Your task to perform on an android device: Clear all items from cart on bestbuy. Add "apple airpods pro" to the cart on bestbuy, then select checkout. Image 0: 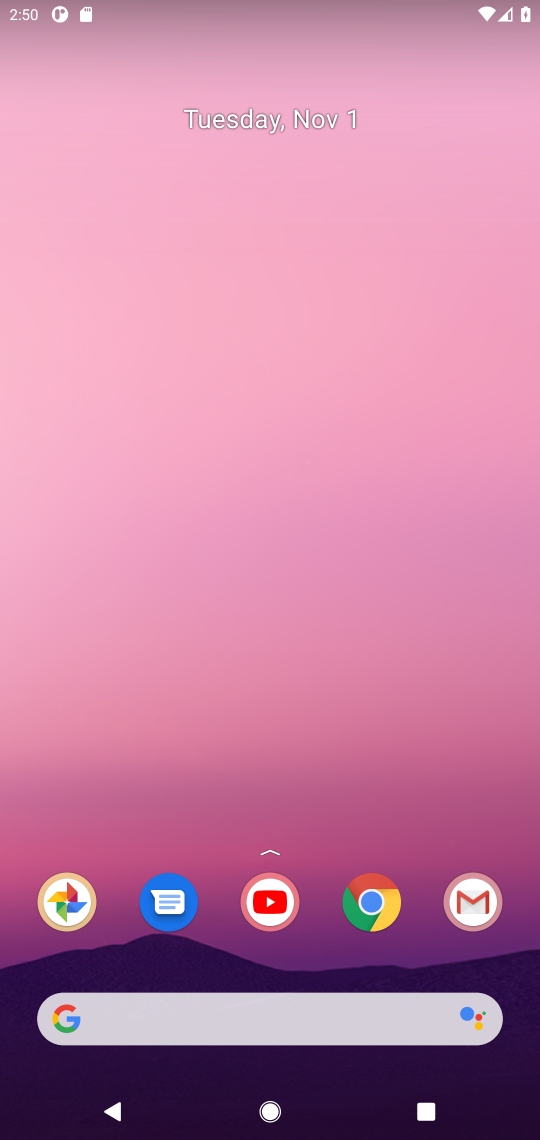
Step 0: click (374, 904)
Your task to perform on an android device: Clear all items from cart on bestbuy. Add "apple airpods pro" to the cart on bestbuy, then select checkout. Image 1: 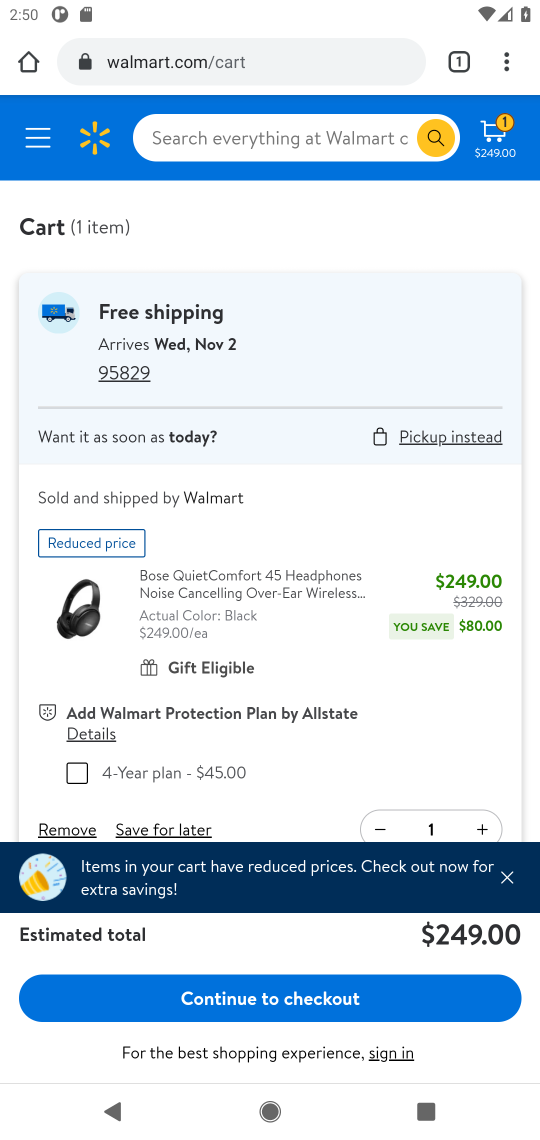
Step 1: click (273, 57)
Your task to perform on an android device: Clear all items from cart on bestbuy. Add "apple airpods pro" to the cart on bestbuy, then select checkout. Image 2: 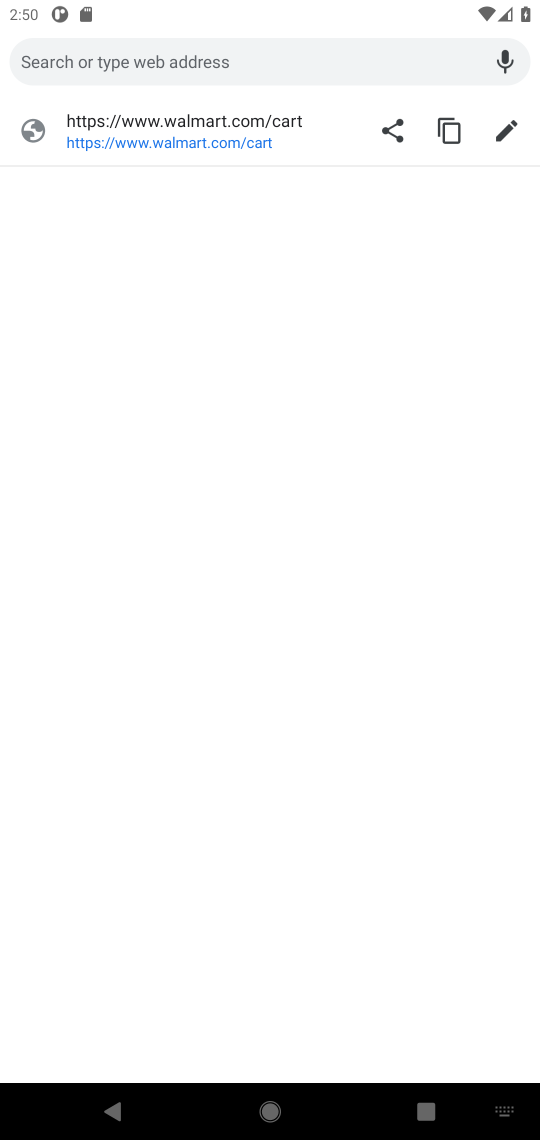
Step 2: type "bestbuy"
Your task to perform on an android device: Clear all items from cart on bestbuy. Add "apple airpods pro" to the cart on bestbuy, then select checkout. Image 3: 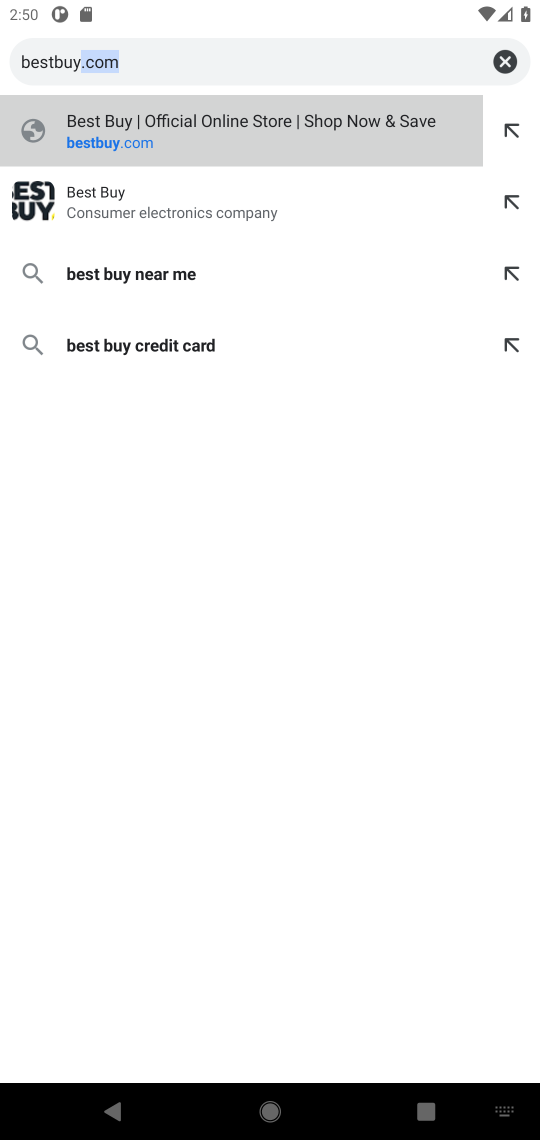
Step 3: click (103, 207)
Your task to perform on an android device: Clear all items from cart on bestbuy. Add "apple airpods pro" to the cart on bestbuy, then select checkout. Image 4: 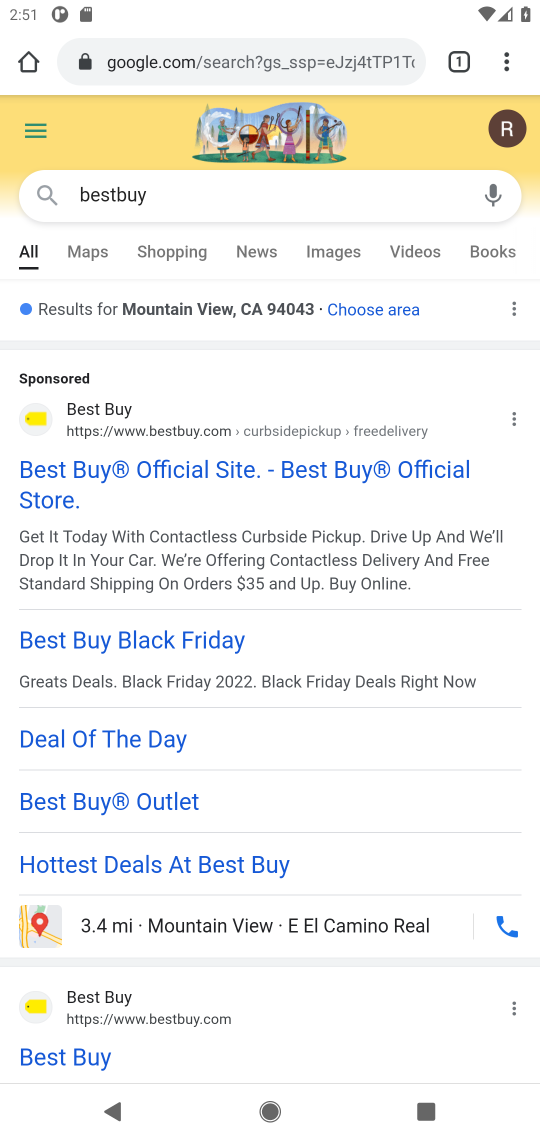
Step 4: click (139, 1023)
Your task to perform on an android device: Clear all items from cart on bestbuy. Add "apple airpods pro" to the cart on bestbuy, then select checkout. Image 5: 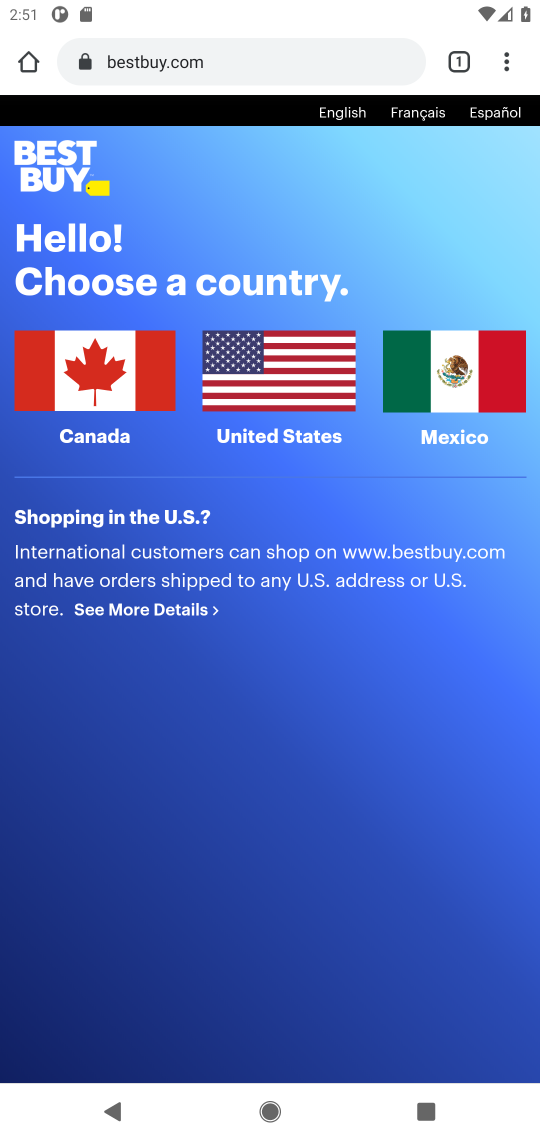
Step 5: click (298, 385)
Your task to perform on an android device: Clear all items from cart on bestbuy. Add "apple airpods pro" to the cart on bestbuy, then select checkout. Image 6: 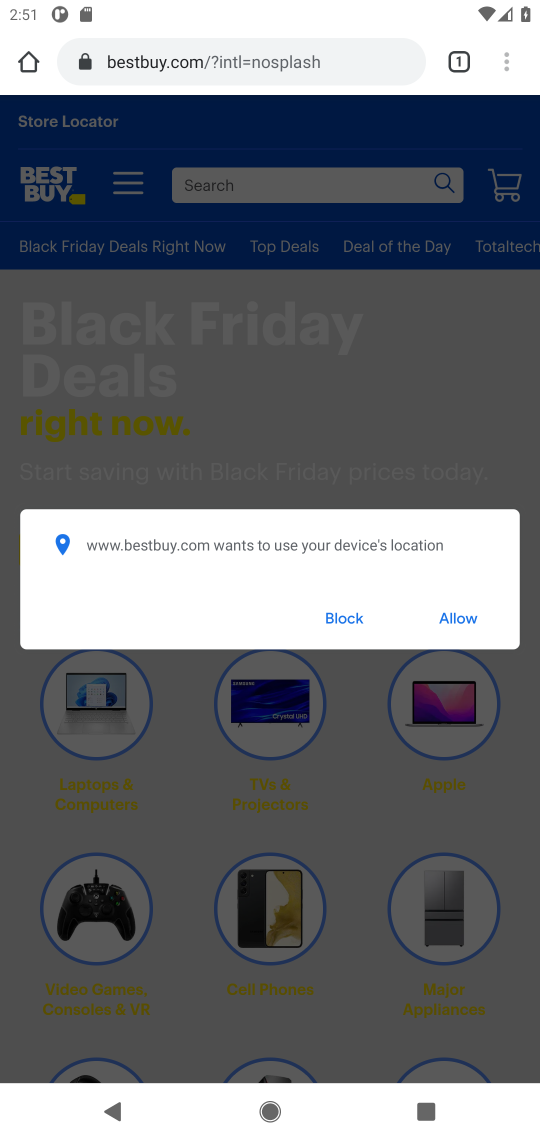
Step 6: click (457, 624)
Your task to perform on an android device: Clear all items from cart on bestbuy. Add "apple airpods pro" to the cart on bestbuy, then select checkout. Image 7: 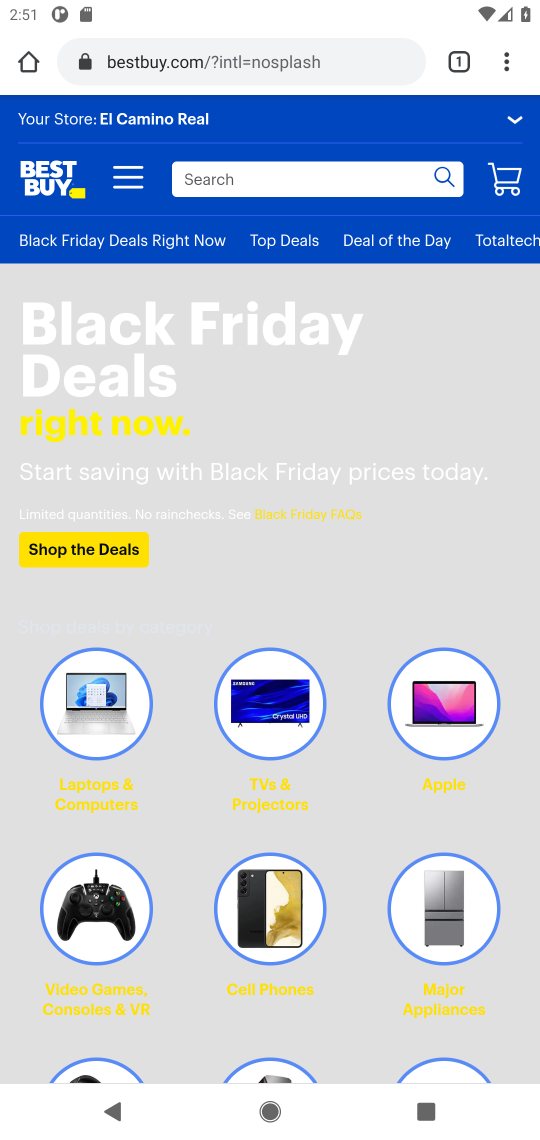
Step 7: click (506, 171)
Your task to perform on an android device: Clear all items from cart on bestbuy. Add "apple airpods pro" to the cart on bestbuy, then select checkout. Image 8: 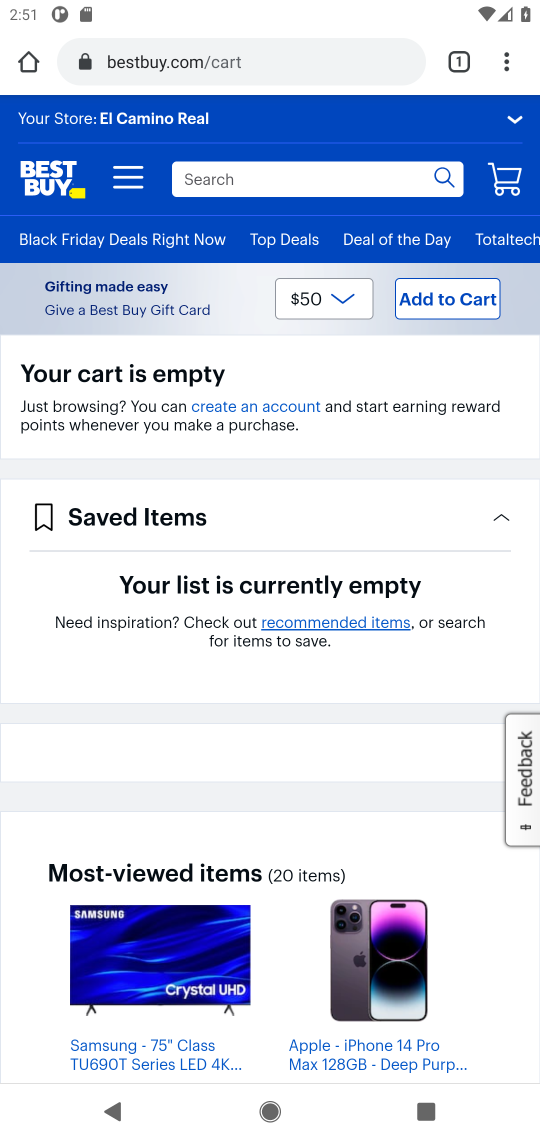
Step 8: click (353, 183)
Your task to perform on an android device: Clear all items from cart on bestbuy. Add "apple airpods pro" to the cart on bestbuy, then select checkout. Image 9: 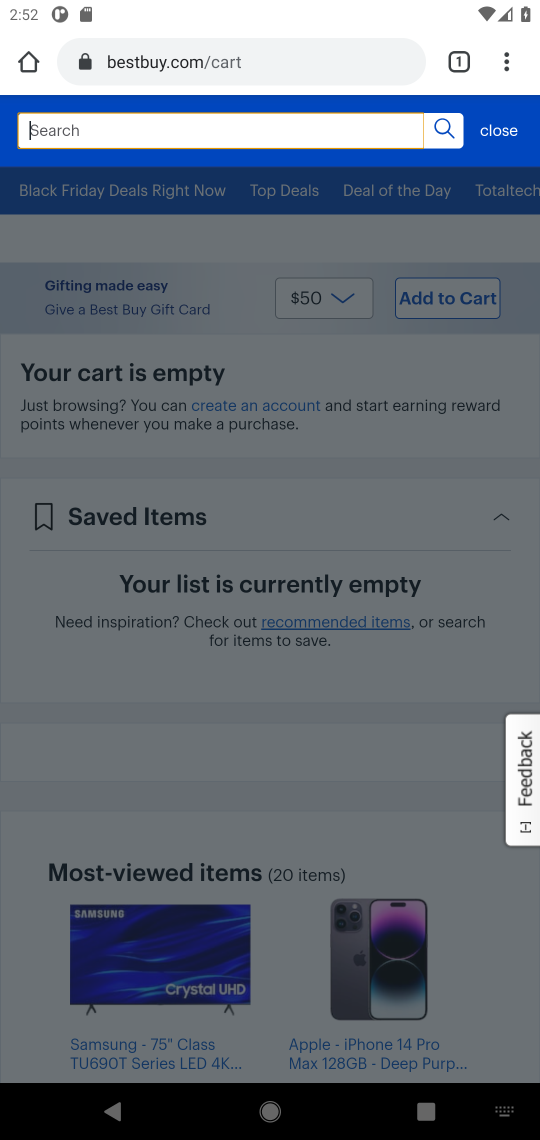
Step 9: type "apple airpods pro"
Your task to perform on an android device: Clear all items from cart on bestbuy. Add "apple airpods pro" to the cart on bestbuy, then select checkout. Image 10: 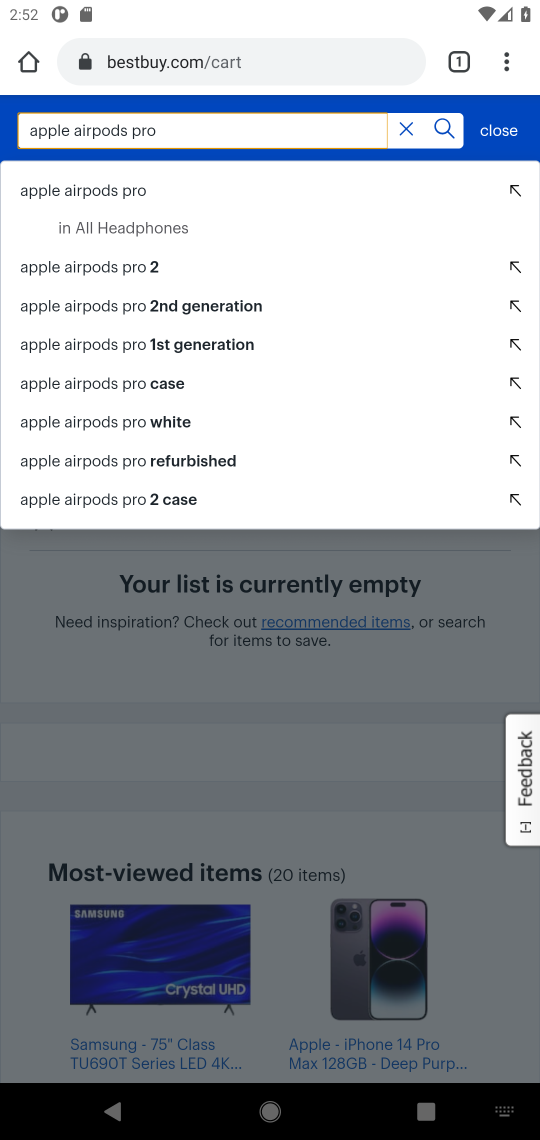
Step 10: click (126, 193)
Your task to perform on an android device: Clear all items from cart on bestbuy. Add "apple airpods pro" to the cart on bestbuy, then select checkout. Image 11: 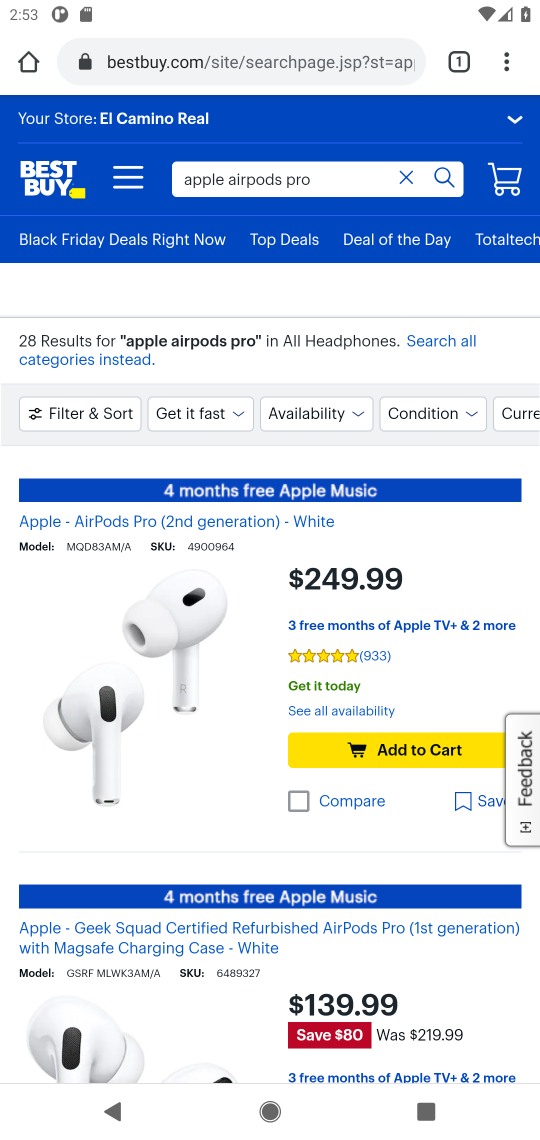
Step 11: click (401, 746)
Your task to perform on an android device: Clear all items from cart on bestbuy. Add "apple airpods pro" to the cart on bestbuy, then select checkout. Image 12: 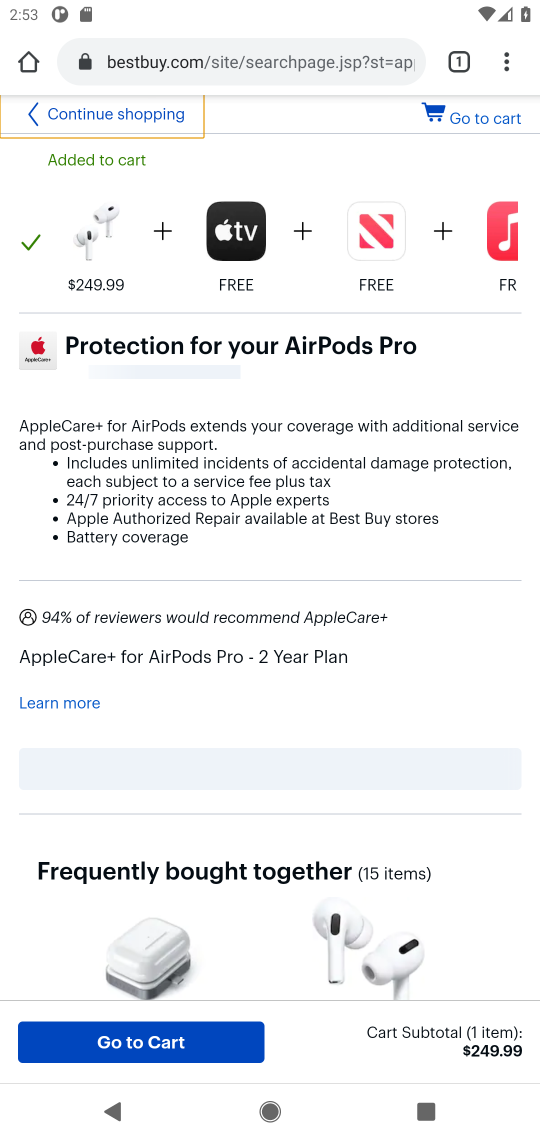
Step 12: click (171, 1051)
Your task to perform on an android device: Clear all items from cart on bestbuy. Add "apple airpods pro" to the cart on bestbuy, then select checkout. Image 13: 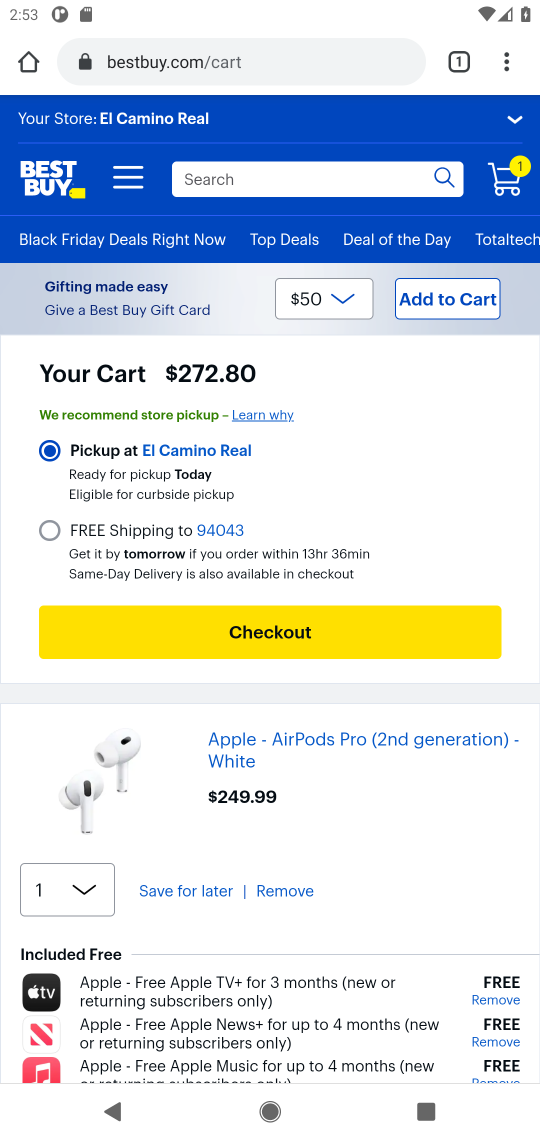
Step 13: click (256, 626)
Your task to perform on an android device: Clear all items from cart on bestbuy. Add "apple airpods pro" to the cart on bestbuy, then select checkout. Image 14: 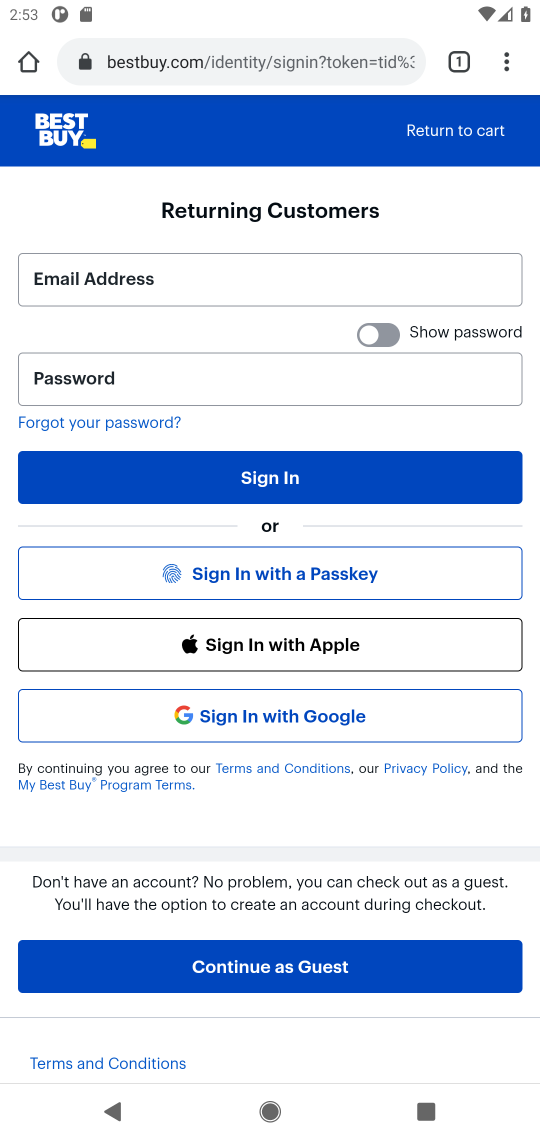
Step 14: task complete